Your task to perform on an android device: change the clock display to analog Image 0: 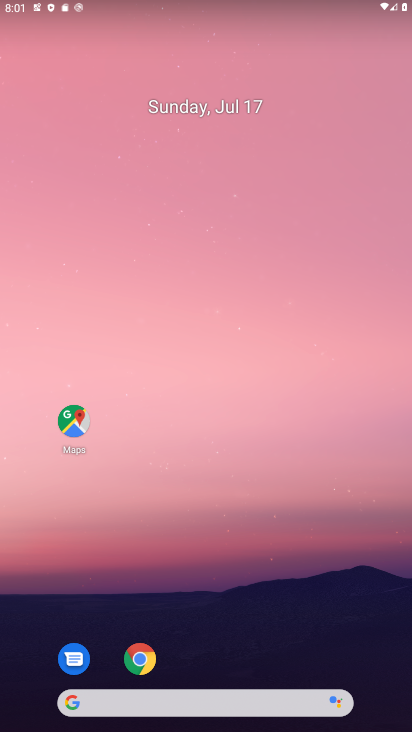
Step 0: drag from (205, 656) to (207, 142)
Your task to perform on an android device: change the clock display to analog Image 1: 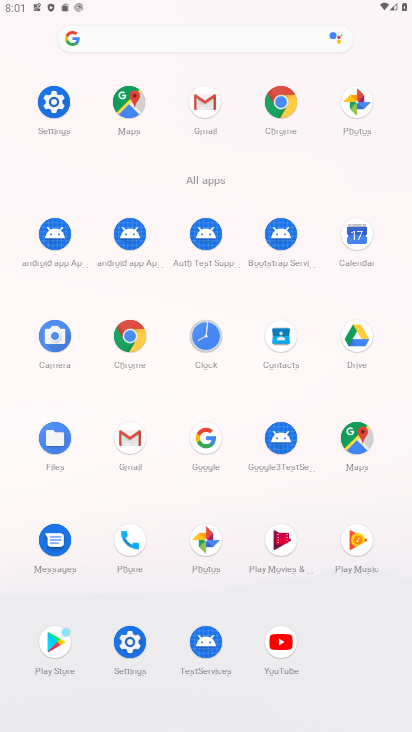
Step 1: click (216, 338)
Your task to perform on an android device: change the clock display to analog Image 2: 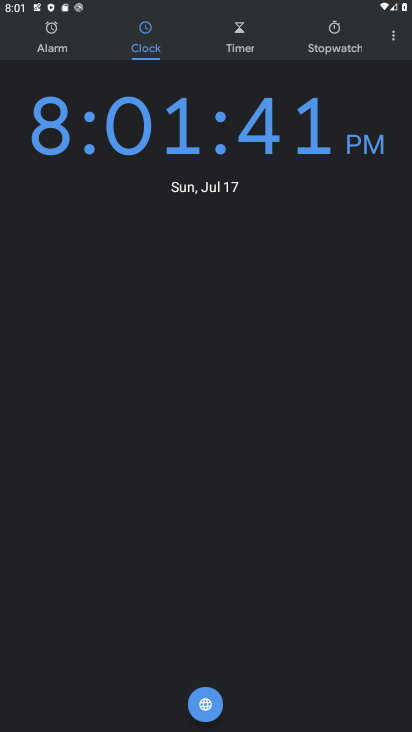
Step 2: click (392, 34)
Your task to perform on an android device: change the clock display to analog Image 3: 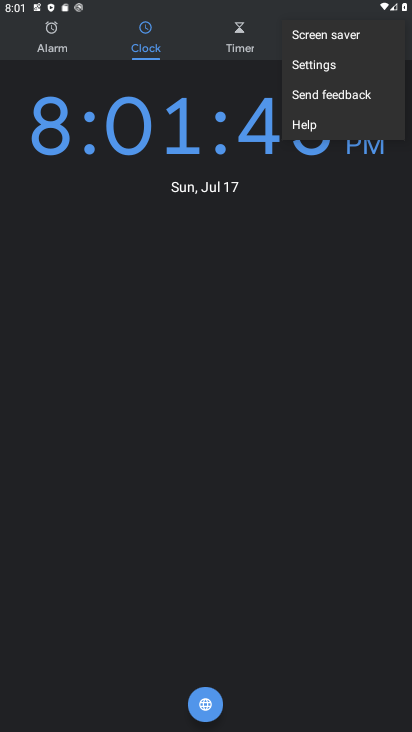
Step 3: click (323, 59)
Your task to perform on an android device: change the clock display to analog Image 4: 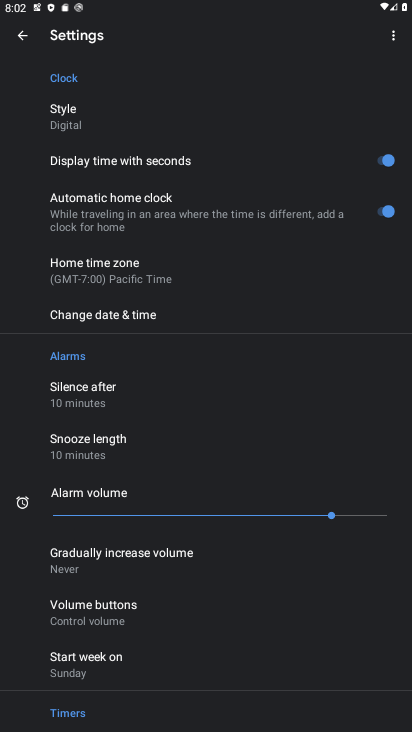
Step 4: click (101, 116)
Your task to perform on an android device: change the clock display to analog Image 5: 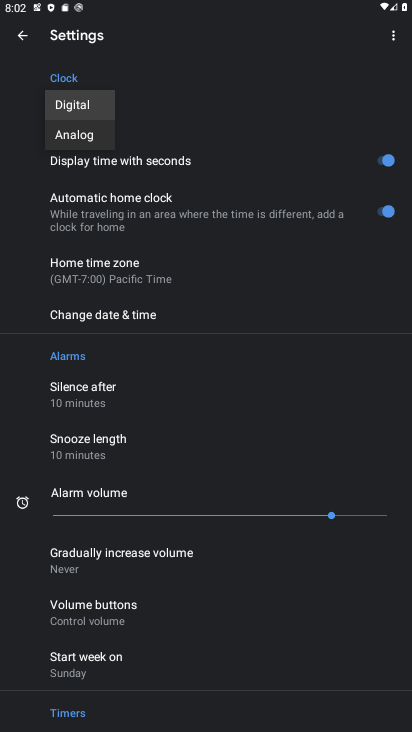
Step 5: click (78, 133)
Your task to perform on an android device: change the clock display to analog Image 6: 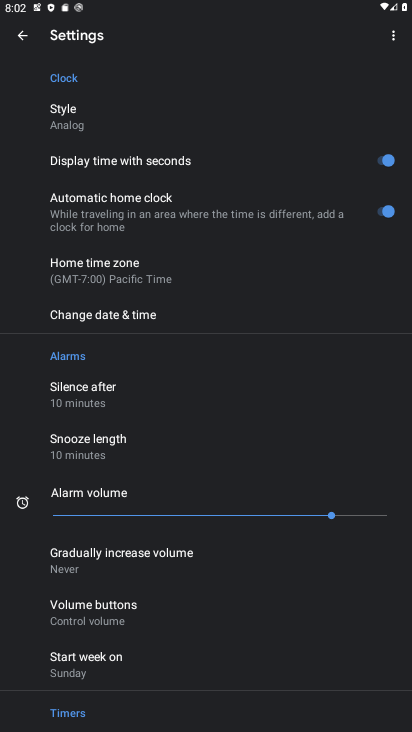
Step 6: task complete